Your task to perform on an android device: Open calendar and show me the second week of next month Image 0: 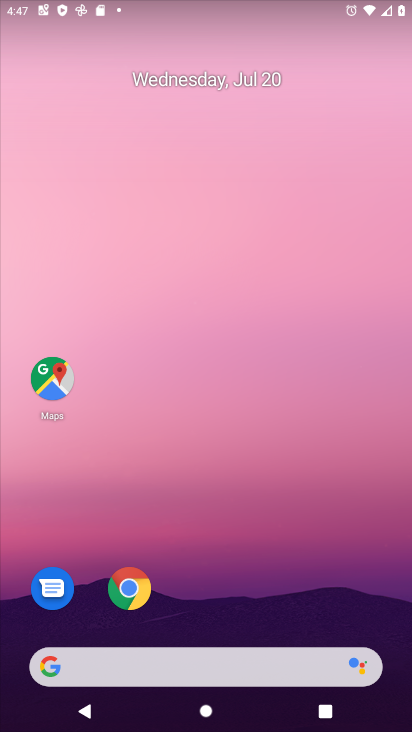
Step 0: drag from (245, 511) to (341, 34)
Your task to perform on an android device: Open calendar and show me the second week of next month Image 1: 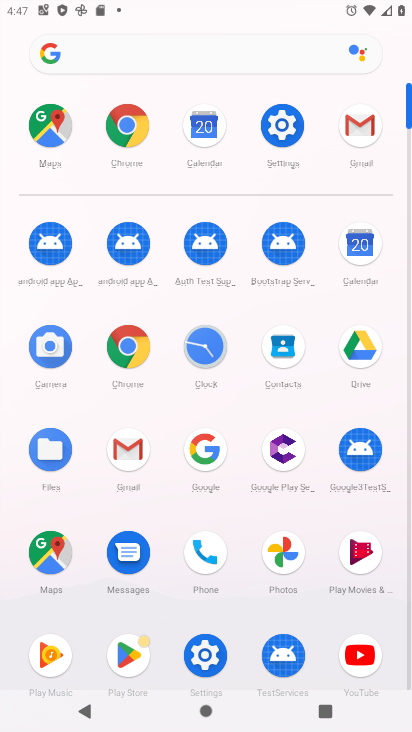
Step 1: click (375, 242)
Your task to perform on an android device: Open calendar and show me the second week of next month Image 2: 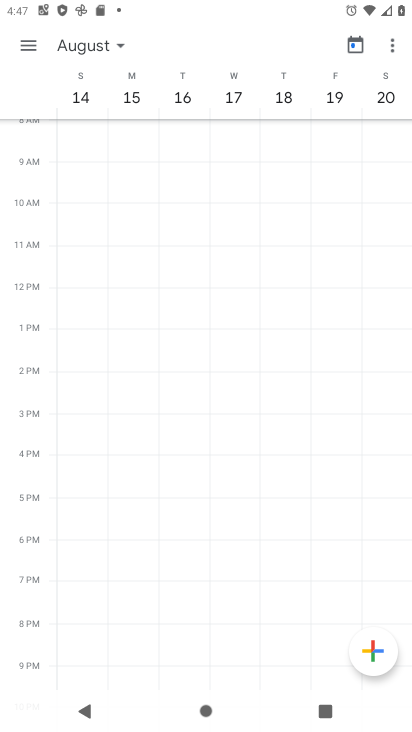
Step 2: task complete